Your task to perform on an android device: see creations saved in the google photos Image 0: 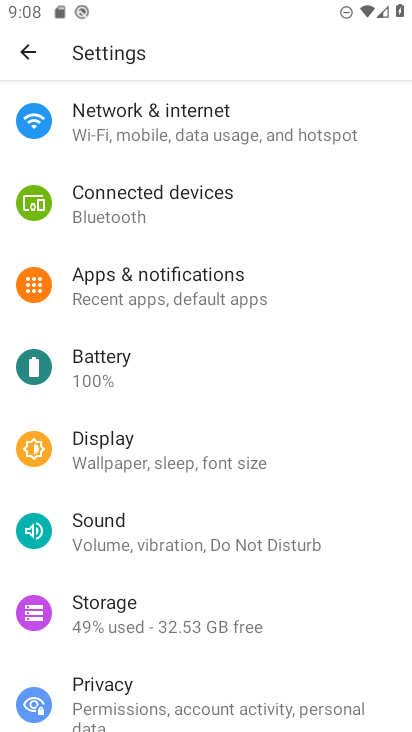
Step 0: press home button
Your task to perform on an android device: see creations saved in the google photos Image 1: 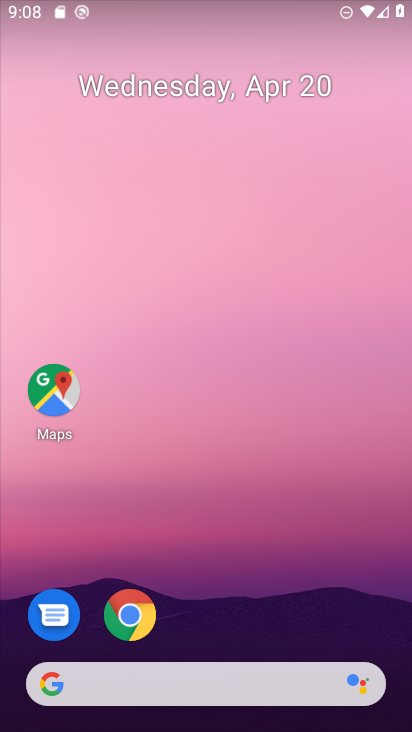
Step 1: drag from (219, 633) to (258, 5)
Your task to perform on an android device: see creations saved in the google photos Image 2: 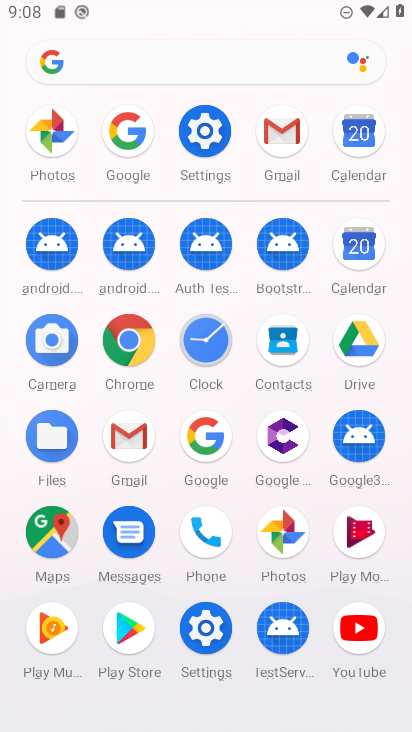
Step 2: click (51, 130)
Your task to perform on an android device: see creations saved in the google photos Image 3: 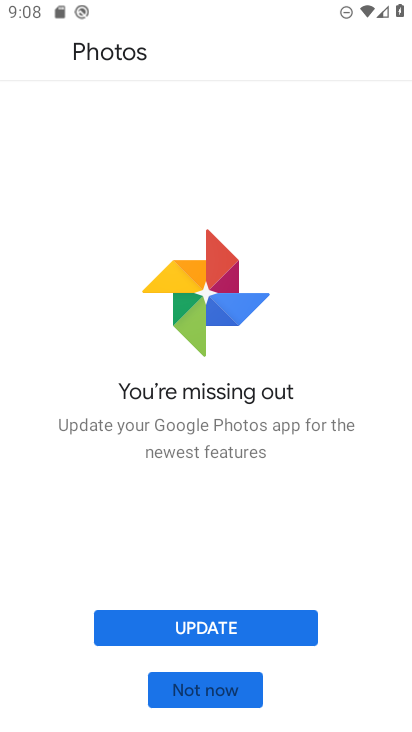
Step 3: click (220, 616)
Your task to perform on an android device: see creations saved in the google photos Image 4: 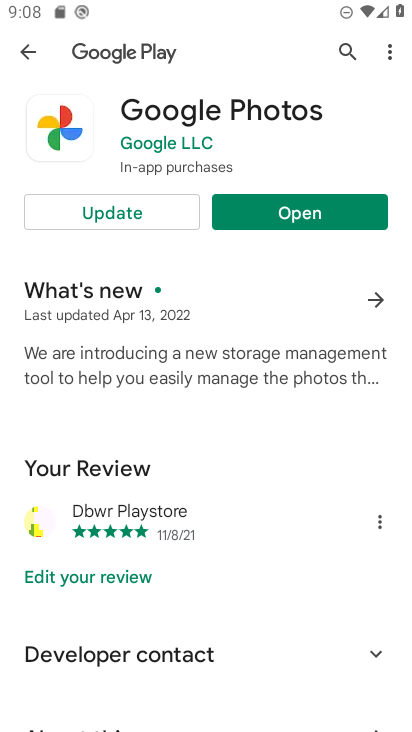
Step 4: click (112, 208)
Your task to perform on an android device: see creations saved in the google photos Image 5: 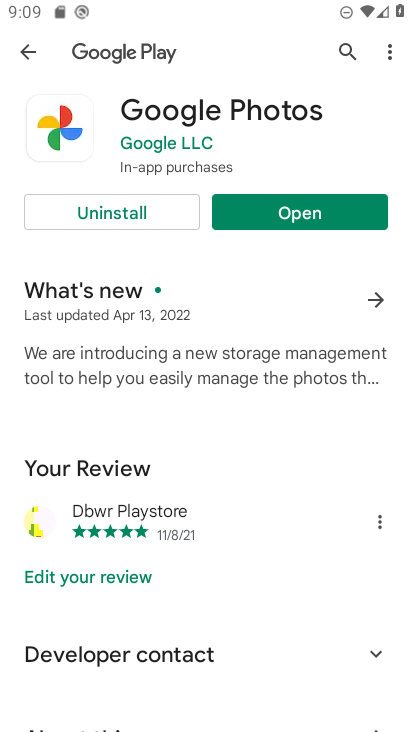
Step 5: click (320, 216)
Your task to perform on an android device: see creations saved in the google photos Image 6: 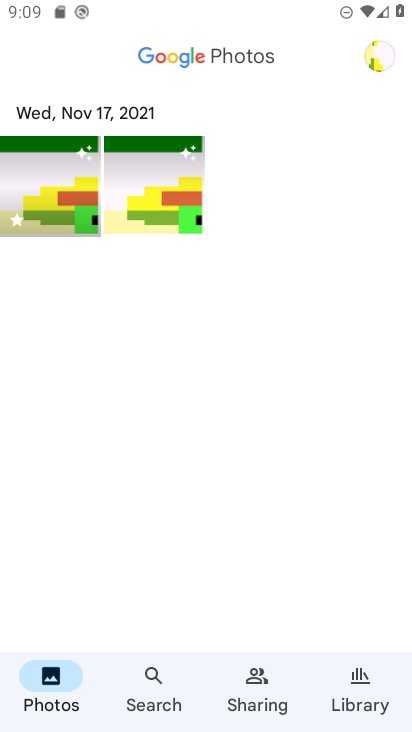
Step 6: click (154, 674)
Your task to perform on an android device: see creations saved in the google photos Image 7: 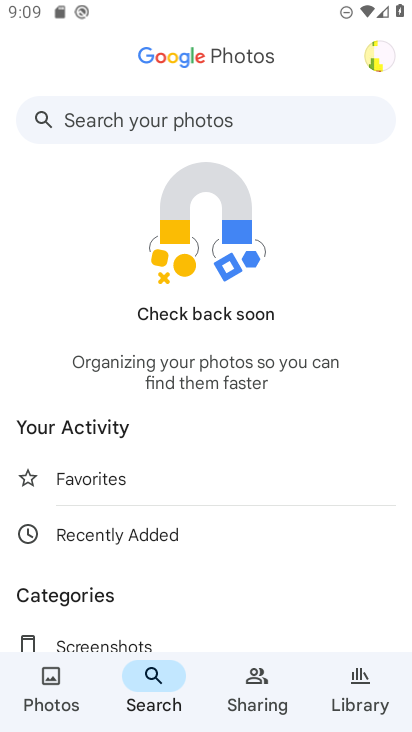
Step 7: drag from (213, 543) to (283, 415)
Your task to perform on an android device: see creations saved in the google photos Image 8: 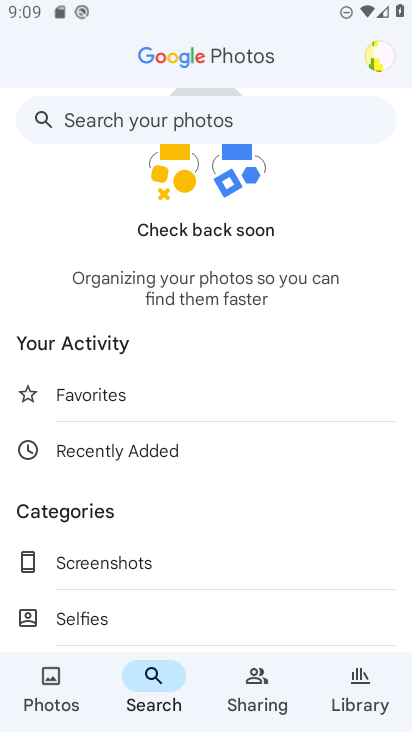
Step 8: drag from (208, 537) to (253, 419)
Your task to perform on an android device: see creations saved in the google photos Image 9: 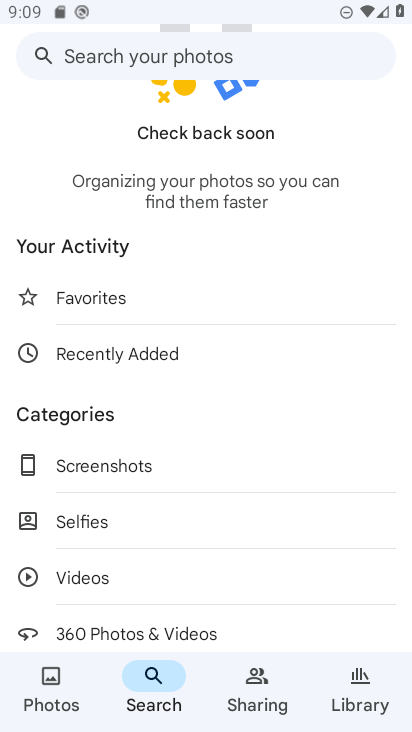
Step 9: drag from (200, 568) to (232, 462)
Your task to perform on an android device: see creations saved in the google photos Image 10: 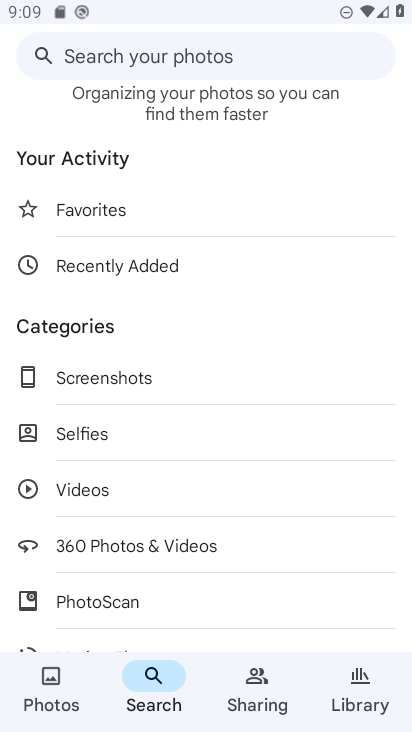
Step 10: drag from (193, 601) to (223, 477)
Your task to perform on an android device: see creations saved in the google photos Image 11: 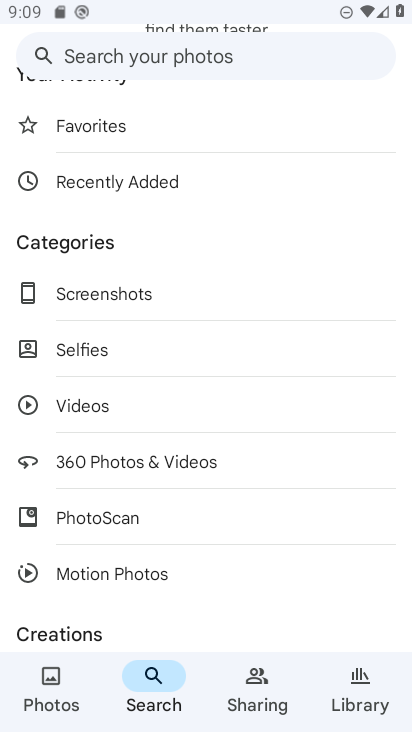
Step 11: drag from (190, 604) to (239, 500)
Your task to perform on an android device: see creations saved in the google photos Image 12: 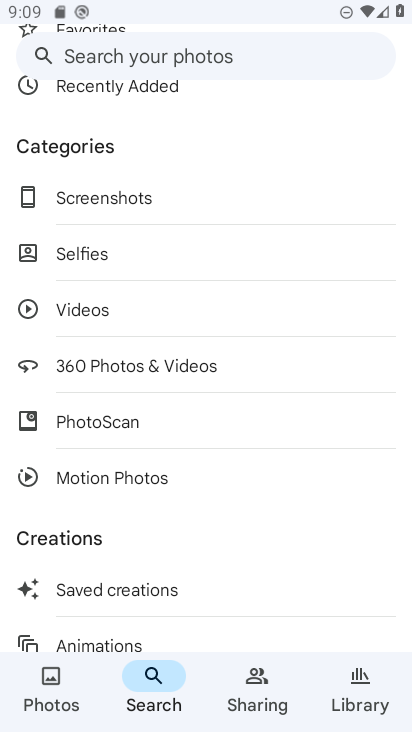
Step 12: click (149, 592)
Your task to perform on an android device: see creations saved in the google photos Image 13: 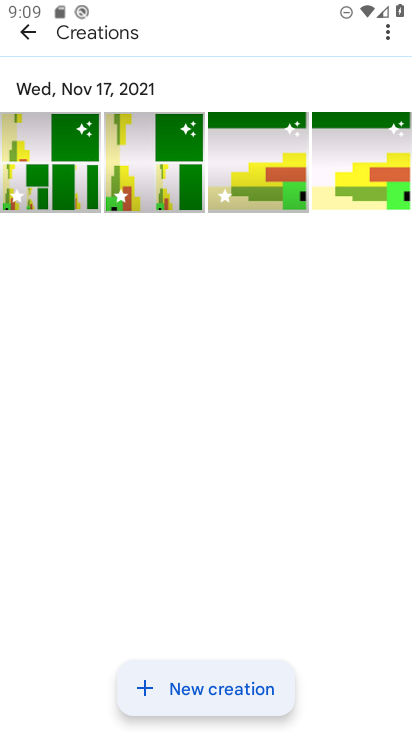
Step 13: task complete